Your task to perform on an android device: Go to sound settings Image 0: 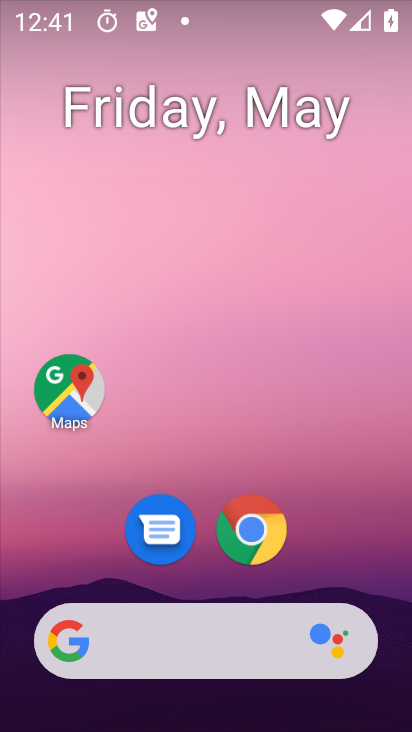
Step 0: drag from (258, 517) to (283, 171)
Your task to perform on an android device: Go to sound settings Image 1: 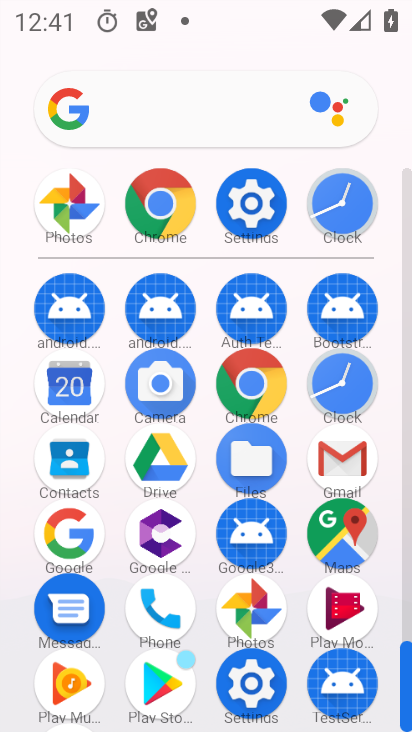
Step 1: click (260, 215)
Your task to perform on an android device: Go to sound settings Image 2: 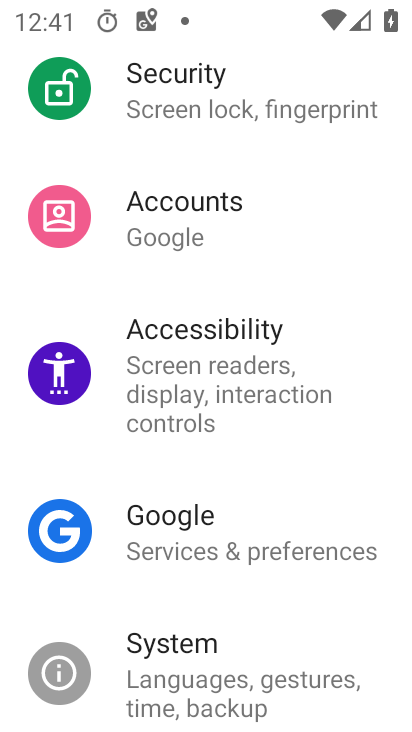
Step 2: drag from (204, 498) to (224, 180)
Your task to perform on an android device: Go to sound settings Image 3: 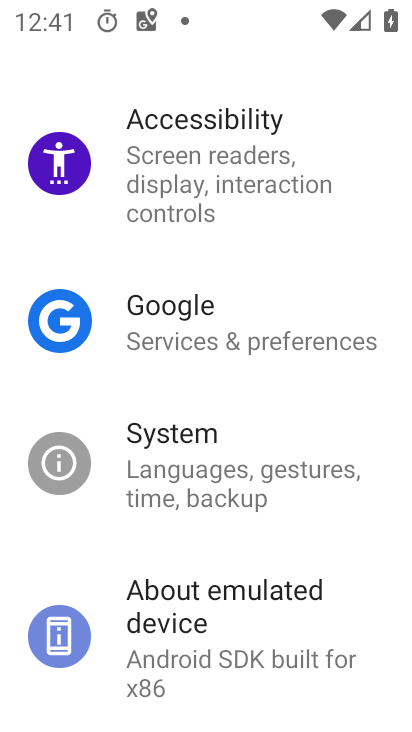
Step 3: drag from (199, 332) to (173, 727)
Your task to perform on an android device: Go to sound settings Image 4: 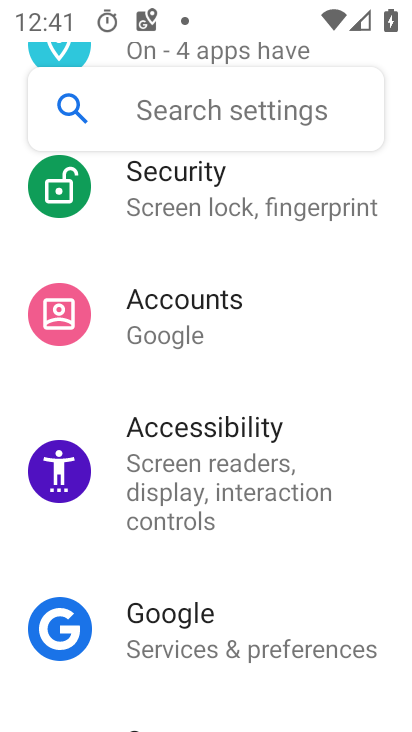
Step 4: drag from (224, 352) to (228, 704)
Your task to perform on an android device: Go to sound settings Image 5: 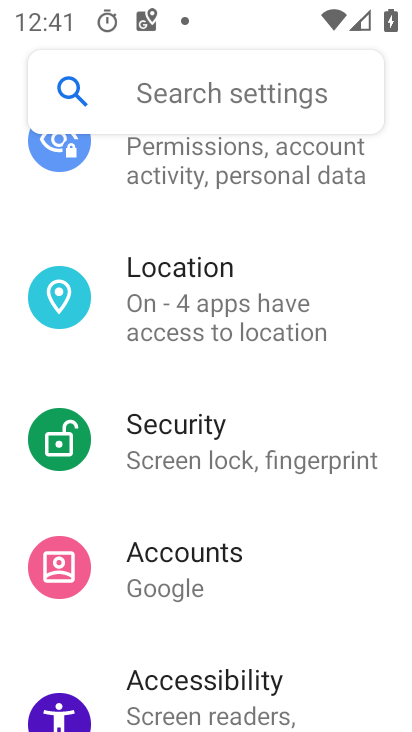
Step 5: drag from (242, 452) to (200, 719)
Your task to perform on an android device: Go to sound settings Image 6: 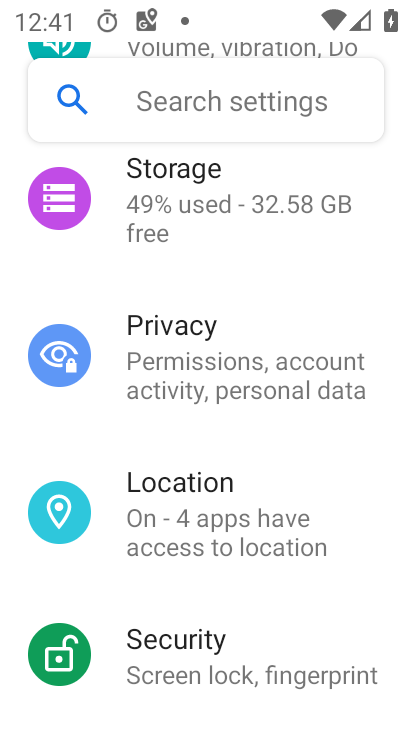
Step 6: drag from (221, 464) to (185, 730)
Your task to perform on an android device: Go to sound settings Image 7: 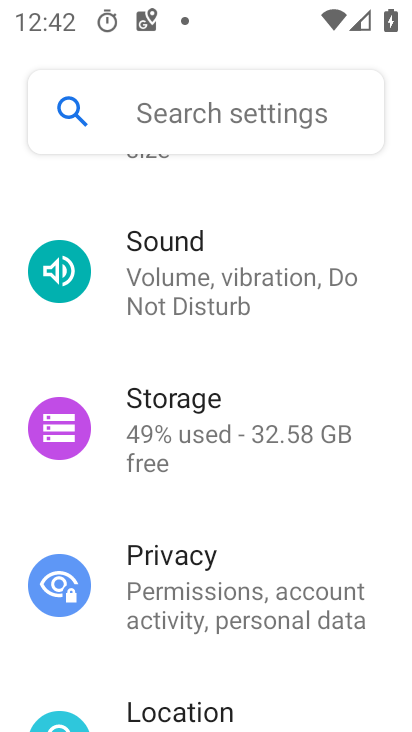
Step 7: click (167, 305)
Your task to perform on an android device: Go to sound settings Image 8: 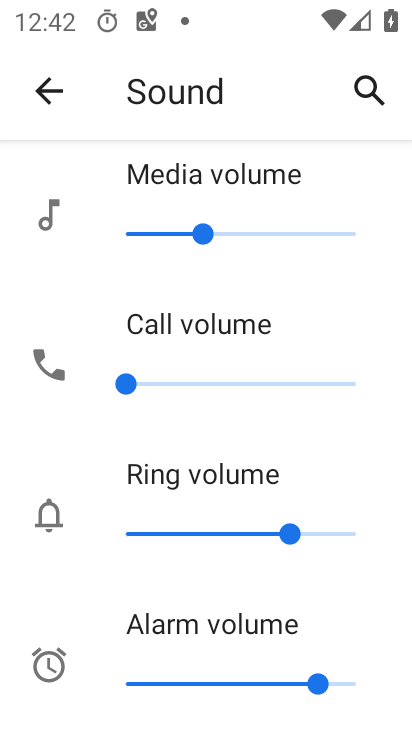
Step 8: task complete